Your task to perform on an android device: clear all cookies in the chrome app Image 0: 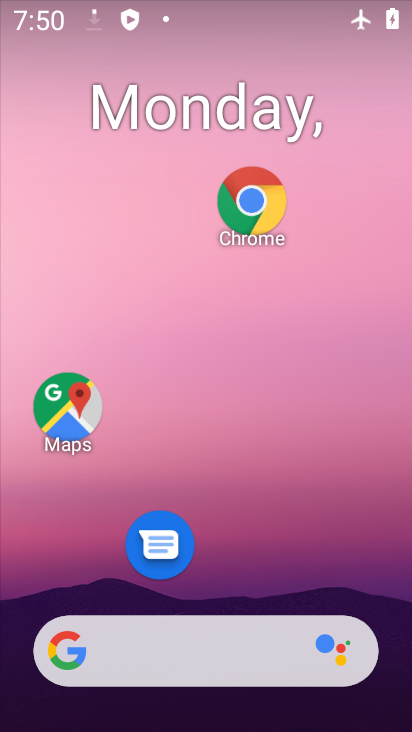
Step 0: click (250, 221)
Your task to perform on an android device: clear all cookies in the chrome app Image 1: 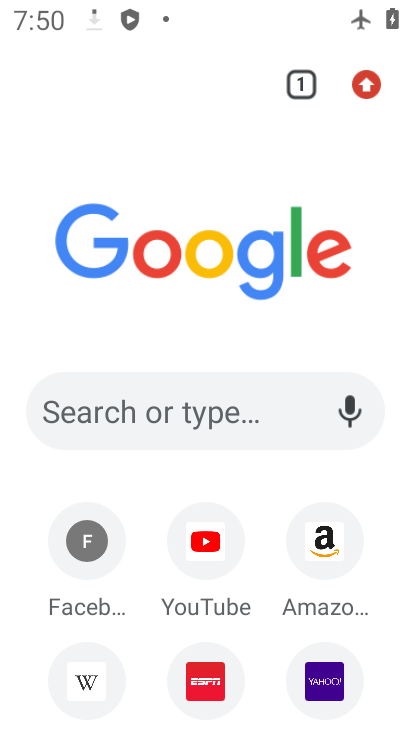
Step 1: click (364, 86)
Your task to perform on an android device: clear all cookies in the chrome app Image 2: 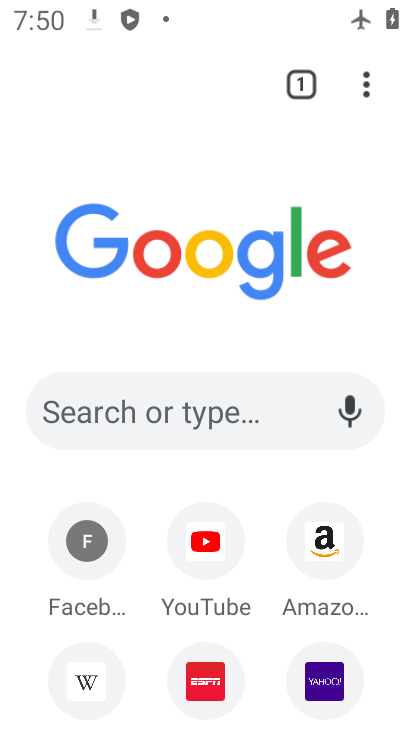
Step 2: click (364, 86)
Your task to perform on an android device: clear all cookies in the chrome app Image 3: 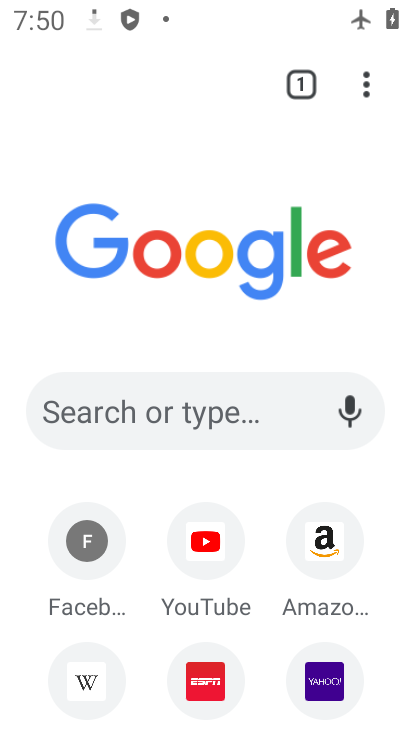
Step 3: click (358, 88)
Your task to perform on an android device: clear all cookies in the chrome app Image 4: 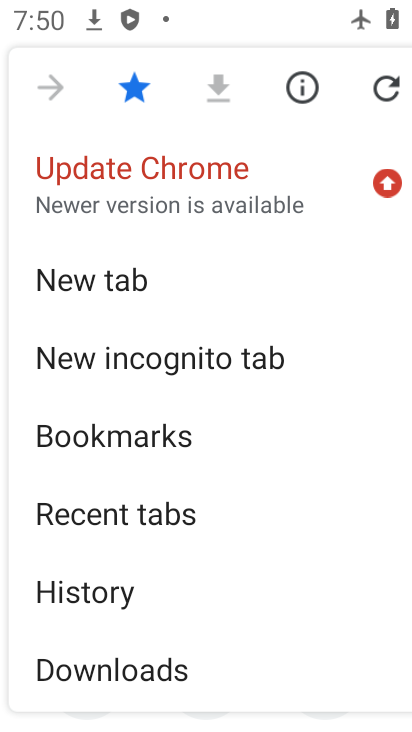
Step 4: click (132, 591)
Your task to perform on an android device: clear all cookies in the chrome app Image 5: 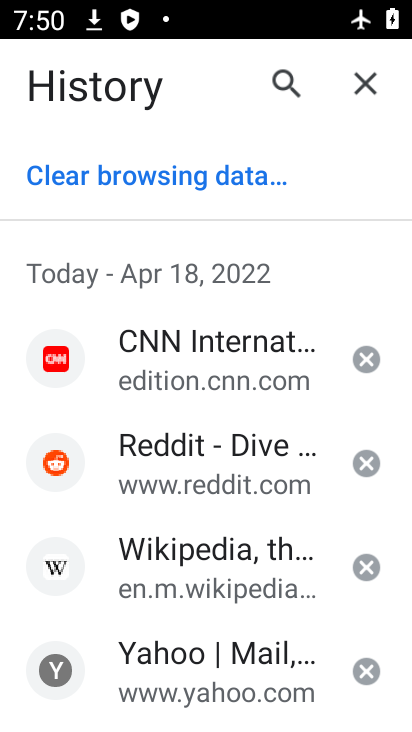
Step 5: click (160, 177)
Your task to perform on an android device: clear all cookies in the chrome app Image 6: 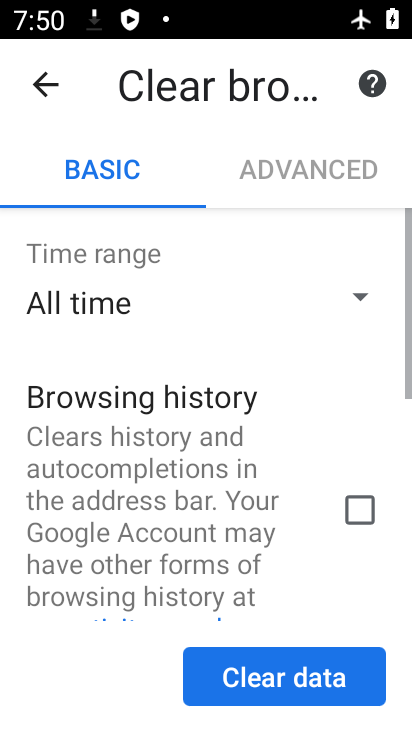
Step 6: drag from (254, 499) to (253, 230)
Your task to perform on an android device: clear all cookies in the chrome app Image 7: 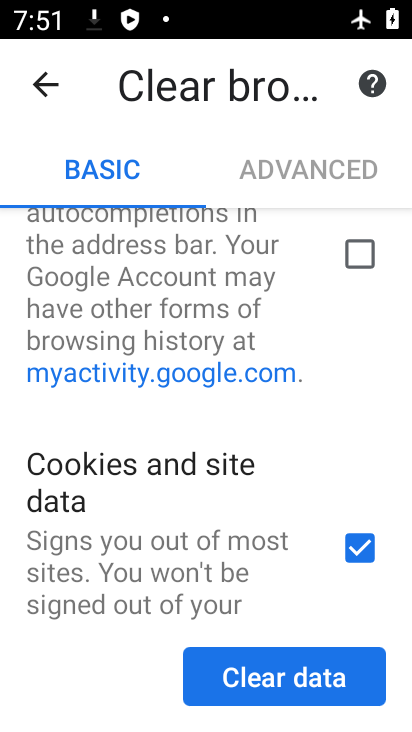
Step 7: click (256, 666)
Your task to perform on an android device: clear all cookies in the chrome app Image 8: 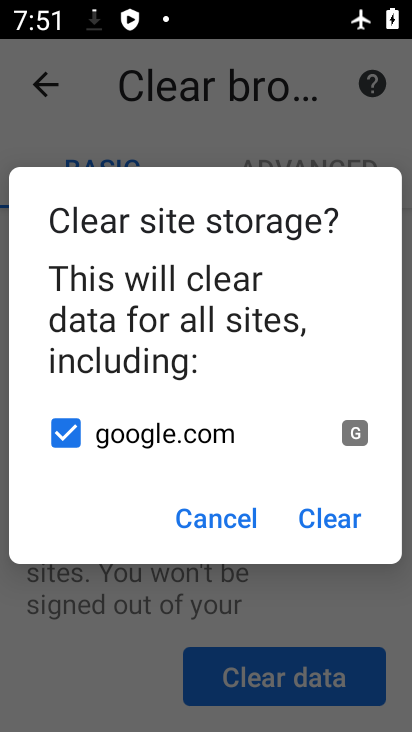
Step 8: click (329, 523)
Your task to perform on an android device: clear all cookies in the chrome app Image 9: 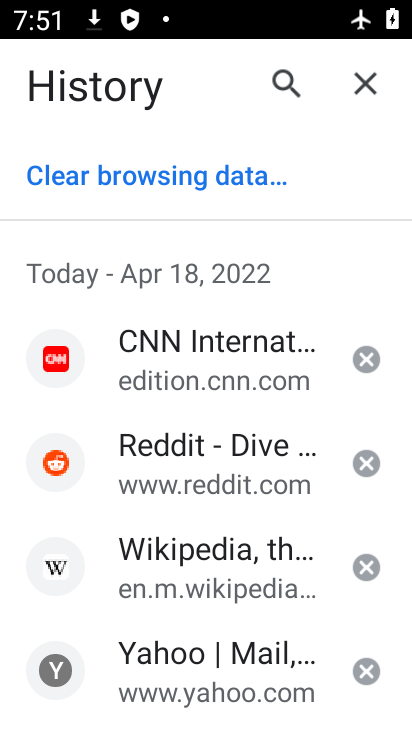
Step 9: task complete